Your task to perform on an android device: turn on javascript in the chrome app Image 0: 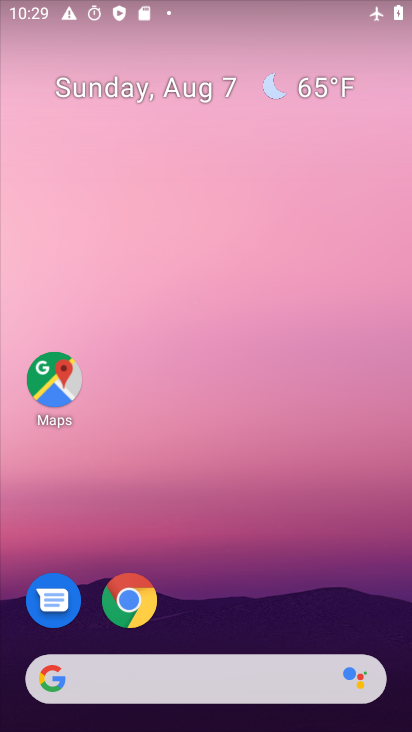
Step 0: drag from (278, 442) to (360, 10)
Your task to perform on an android device: turn on javascript in the chrome app Image 1: 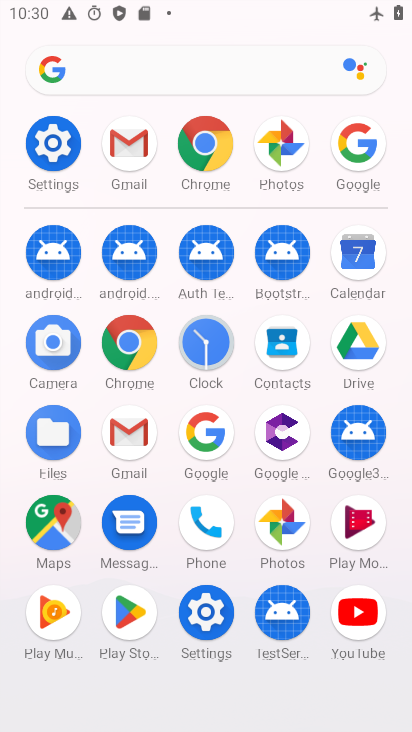
Step 1: click (206, 171)
Your task to perform on an android device: turn on javascript in the chrome app Image 2: 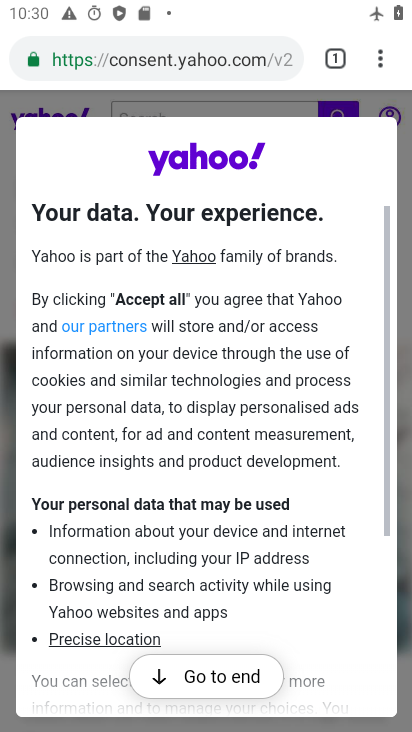
Step 2: click (379, 65)
Your task to perform on an android device: turn on javascript in the chrome app Image 3: 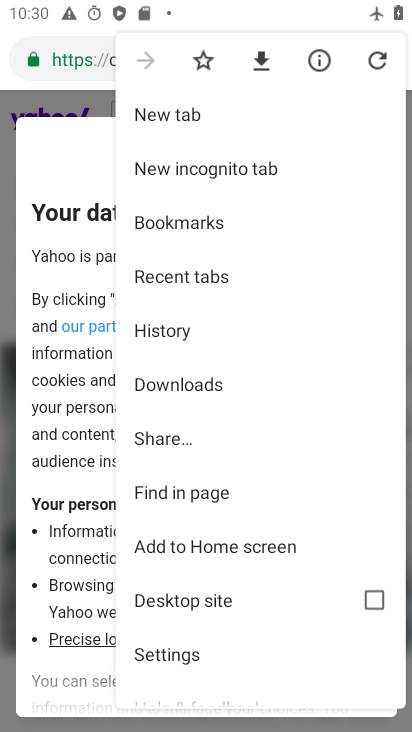
Step 3: click (196, 653)
Your task to perform on an android device: turn on javascript in the chrome app Image 4: 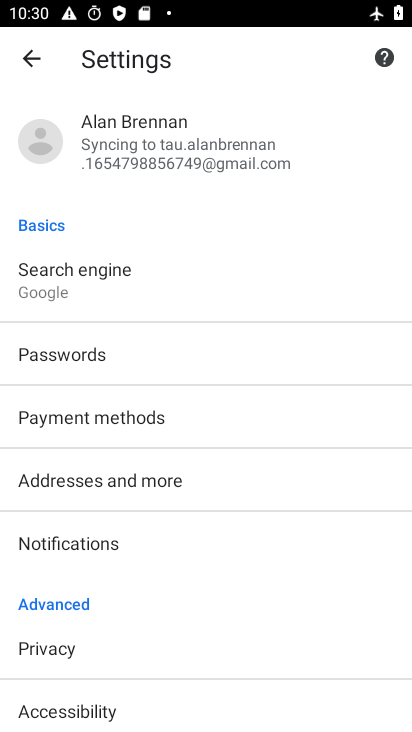
Step 4: drag from (215, 660) to (199, 335)
Your task to perform on an android device: turn on javascript in the chrome app Image 5: 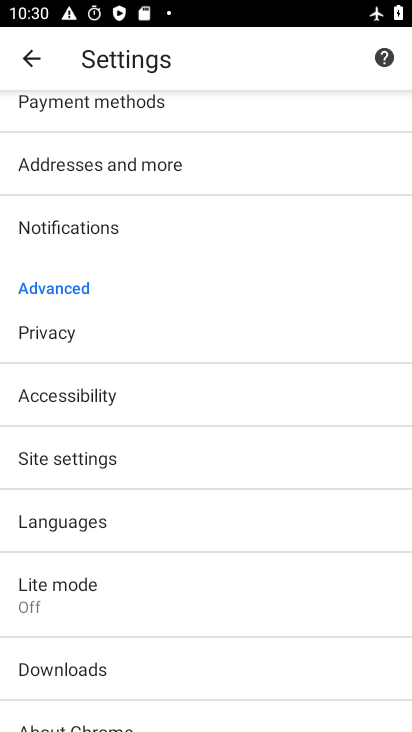
Step 5: click (74, 456)
Your task to perform on an android device: turn on javascript in the chrome app Image 6: 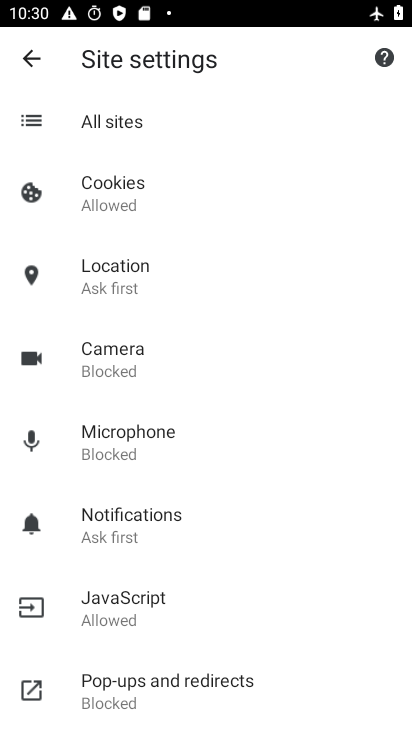
Step 6: click (153, 599)
Your task to perform on an android device: turn on javascript in the chrome app Image 7: 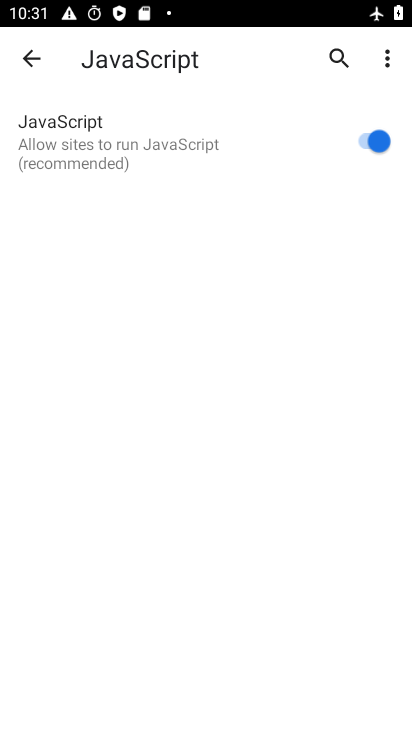
Step 7: task complete